Your task to perform on an android device: add a label to a message in the gmail app Image 0: 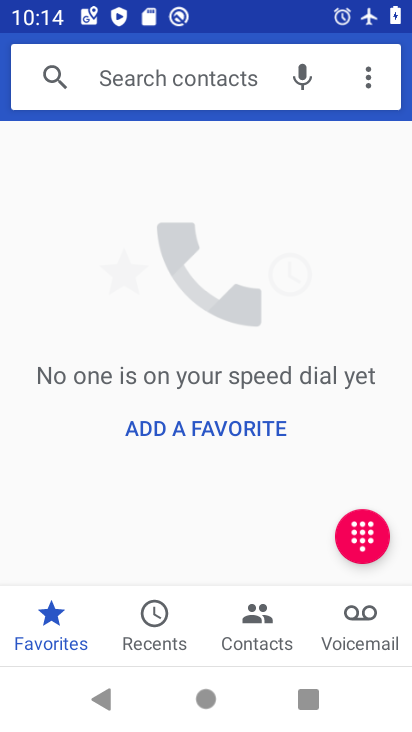
Step 0: press home button
Your task to perform on an android device: add a label to a message in the gmail app Image 1: 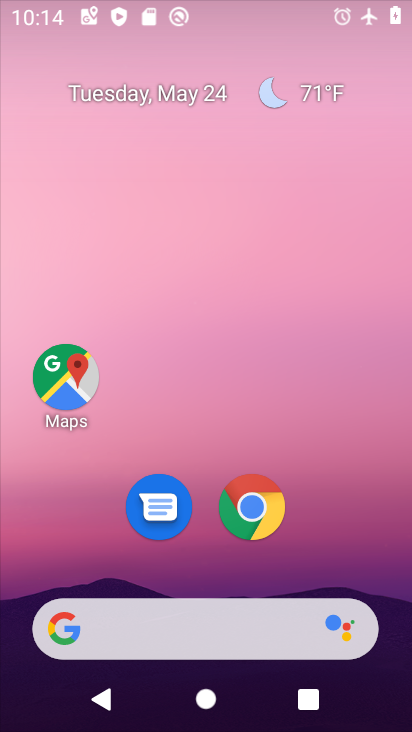
Step 1: drag from (221, 722) to (166, 98)
Your task to perform on an android device: add a label to a message in the gmail app Image 2: 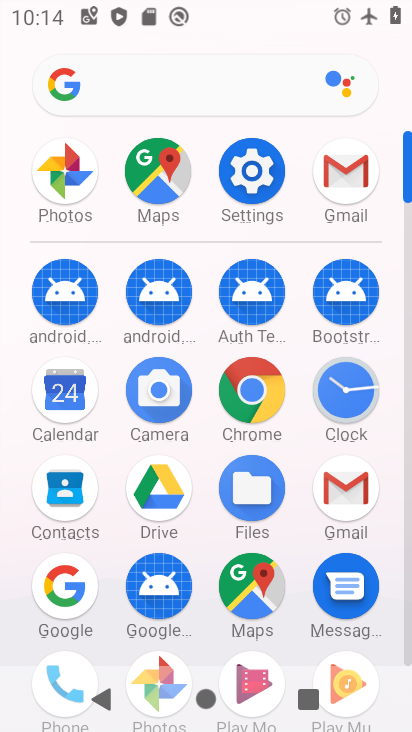
Step 2: click (342, 490)
Your task to perform on an android device: add a label to a message in the gmail app Image 3: 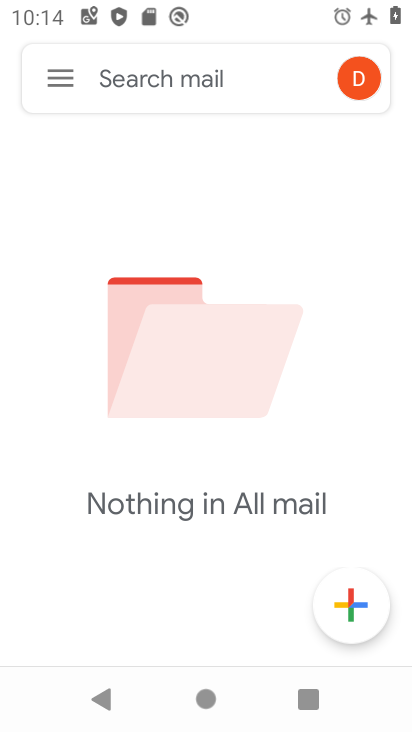
Step 3: click (60, 67)
Your task to perform on an android device: add a label to a message in the gmail app Image 4: 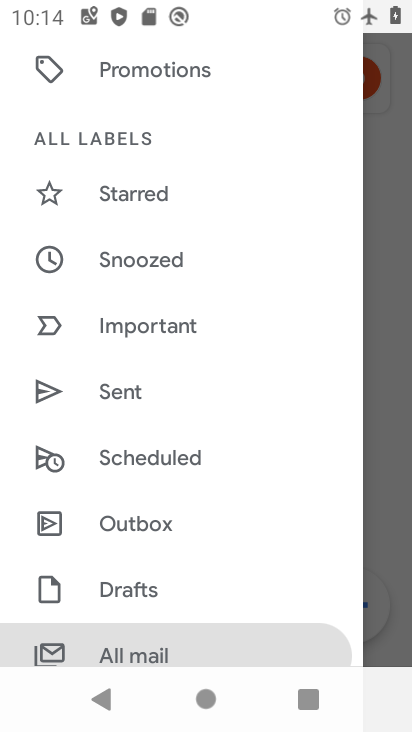
Step 4: drag from (188, 559) to (200, 210)
Your task to perform on an android device: add a label to a message in the gmail app Image 5: 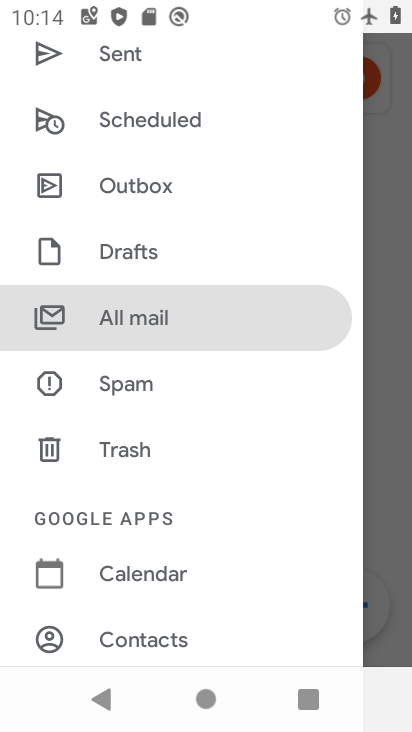
Step 5: drag from (179, 615) to (180, 237)
Your task to perform on an android device: add a label to a message in the gmail app Image 6: 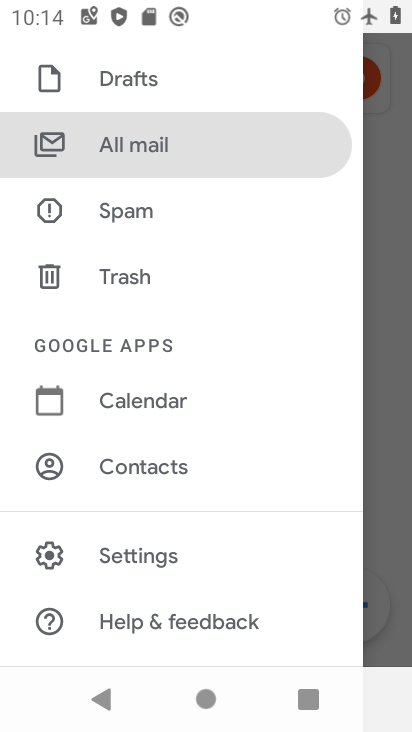
Step 6: drag from (188, 146) to (188, 182)
Your task to perform on an android device: add a label to a message in the gmail app Image 7: 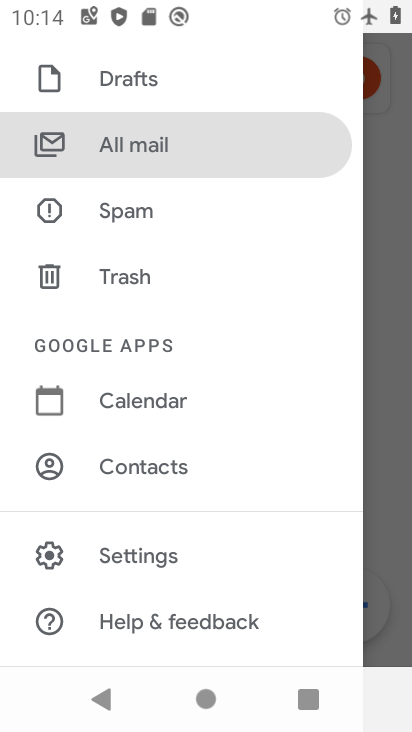
Step 7: drag from (188, 399) to (184, 505)
Your task to perform on an android device: add a label to a message in the gmail app Image 8: 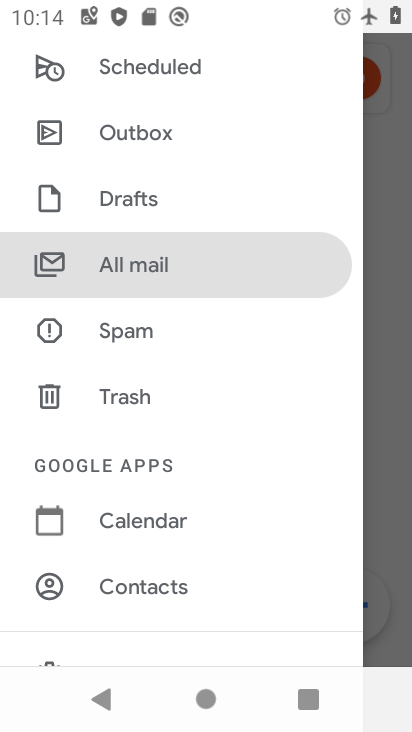
Step 8: drag from (176, 110) to (186, 526)
Your task to perform on an android device: add a label to a message in the gmail app Image 9: 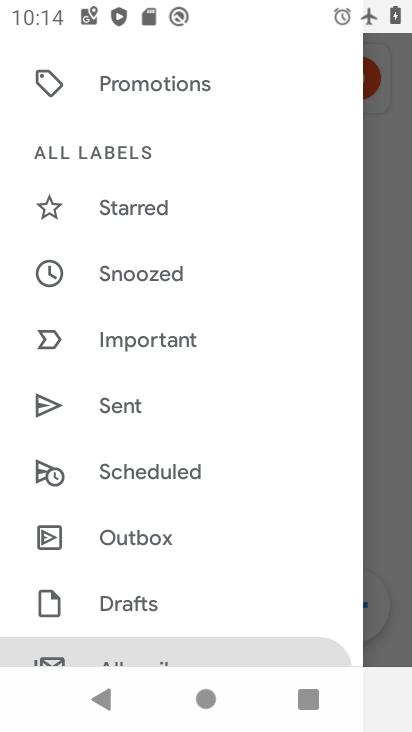
Step 9: drag from (182, 114) to (179, 552)
Your task to perform on an android device: add a label to a message in the gmail app Image 10: 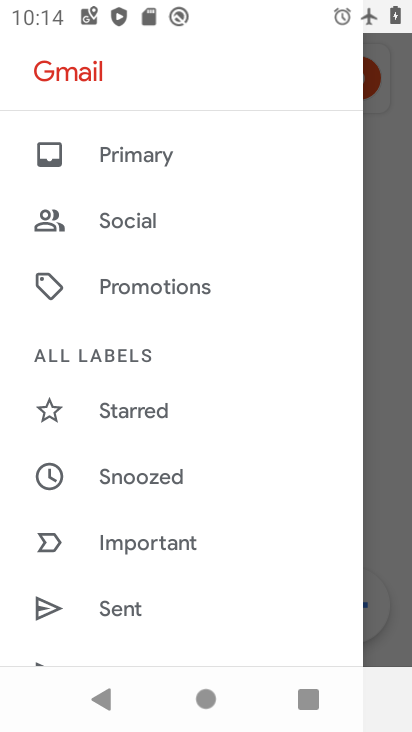
Step 10: click (151, 152)
Your task to perform on an android device: add a label to a message in the gmail app Image 11: 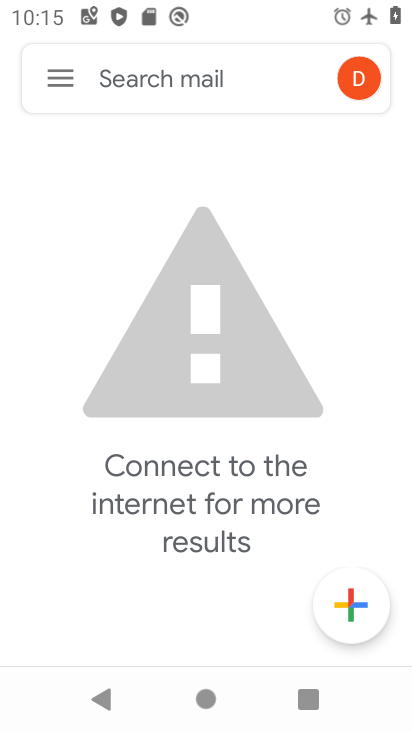
Step 11: task complete